Your task to perform on an android device: Open Google Chrome Image 0: 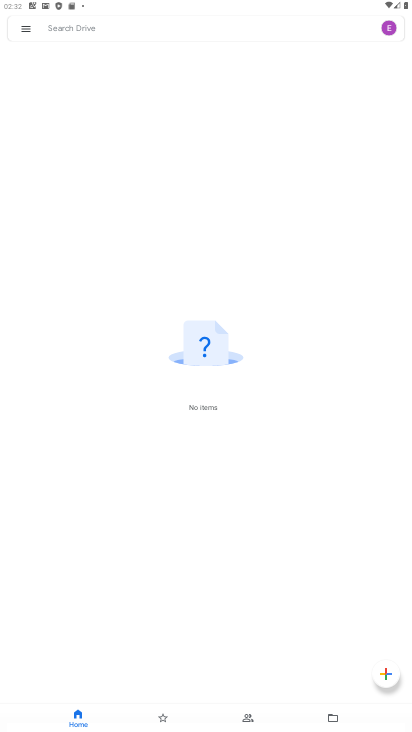
Step 0: press home button
Your task to perform on an android device: Open Google Chrome Image 1: 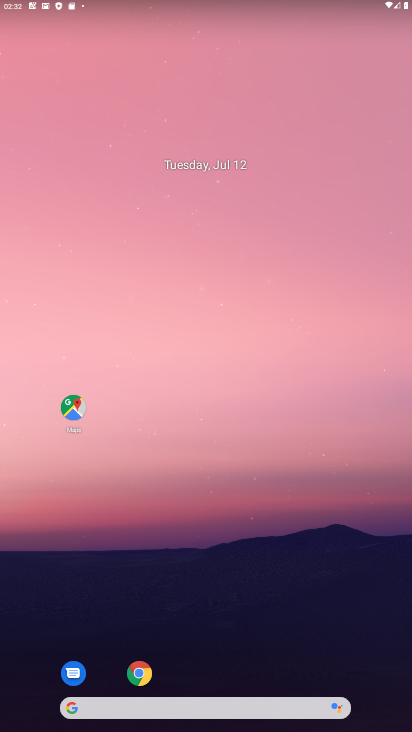
Step 1: click (142, 671)
Your task to perform on an android device: Open Google Chrome Image 2: 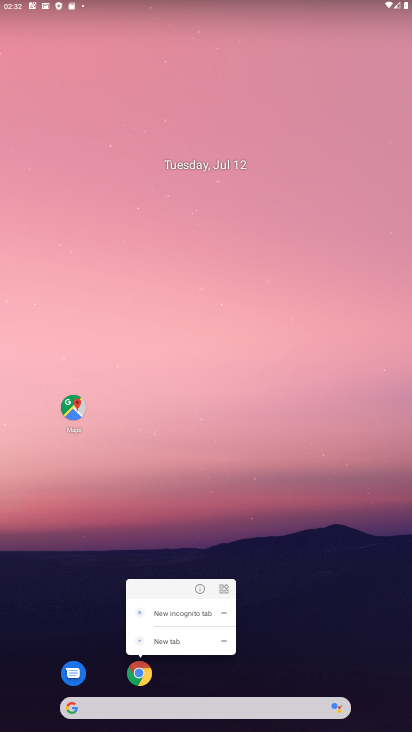
Step 2: click (142, 672)
Your task to perform on an android device: Open Google Chrome Image 3: 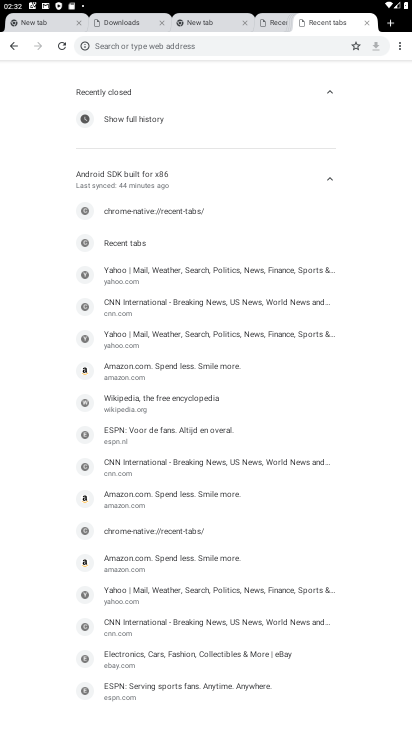
Step 3: click (14, 46)
Your task to perform on an android device: Open Google Chrome Image 4: 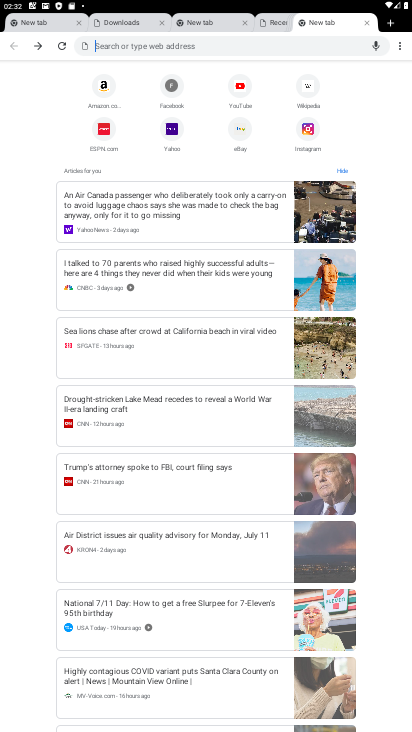
Step 4: click (12, 46)
Your task to perform on an android device: Open Google Chrome Image 5: 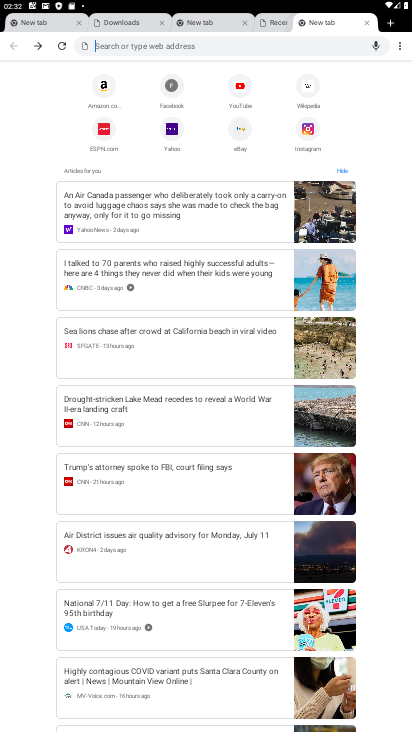
Step 5: task complete